Your task to perform on an android device: turn on sleep mode Image 0: 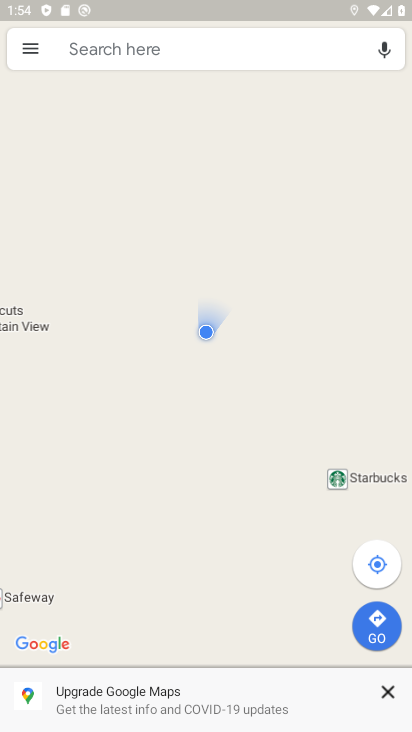
Step 0: press home button
Your task to perform on an android device: turn on sleep mode Image 1: 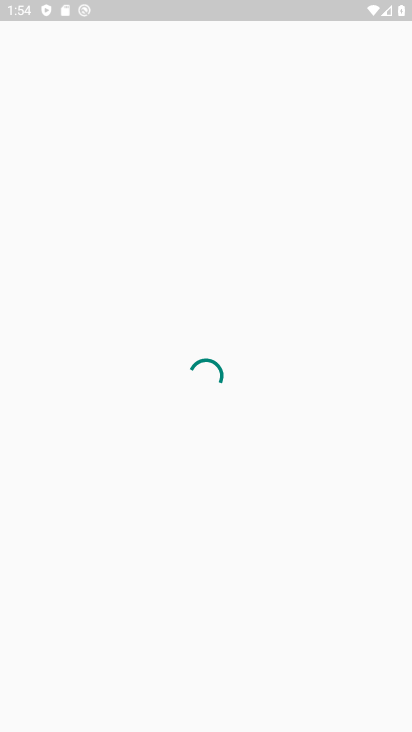
Step 1: drag from (247, 4) to (254, 393)
Your task to perform on an android device: turn on sleep mode Image 2: 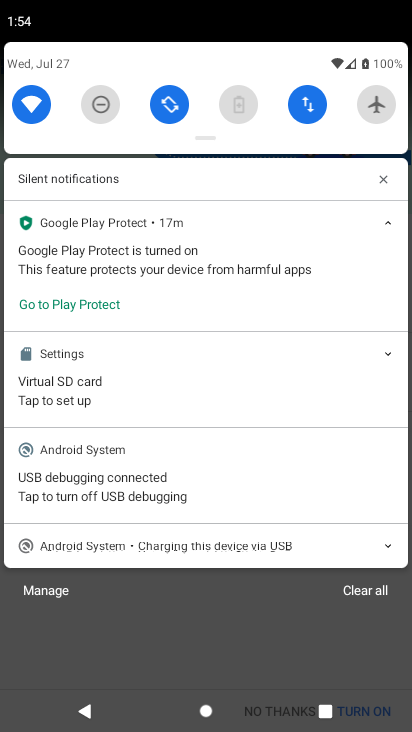
Step 2: drag from (212, 136) to (193, 471)
Your task to perform on an android device: turn on sleep mode Image 3: 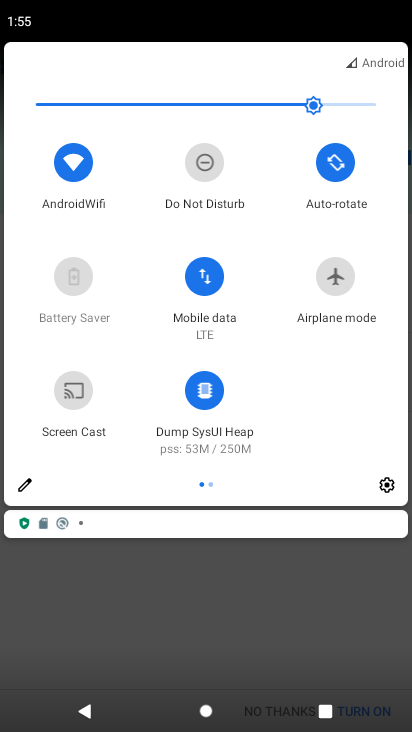
Step 3: click (30, 482)
Your task to perform on an android device: turn on sleep mode Image 4: 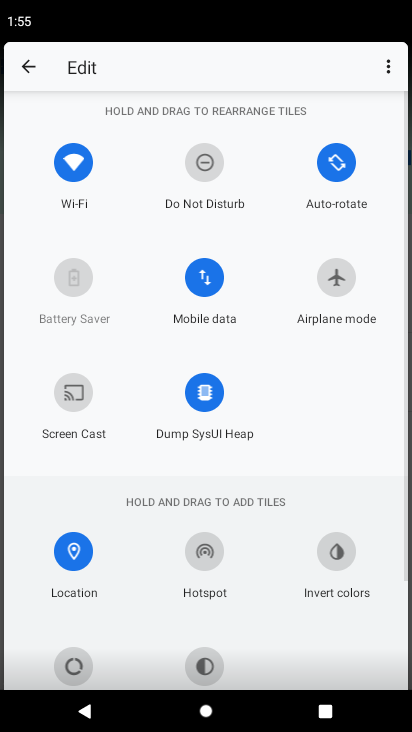
Step 4: task complete